Your task to perform on an android device: What's the weather going to be tomorrow? Image 0: 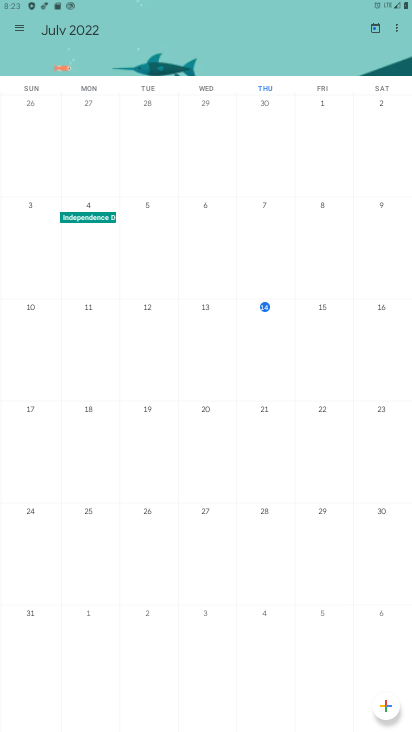
Step 0: press home button
Your task to perform on an android device: What's the weather going to be tomorrow? Image 1: 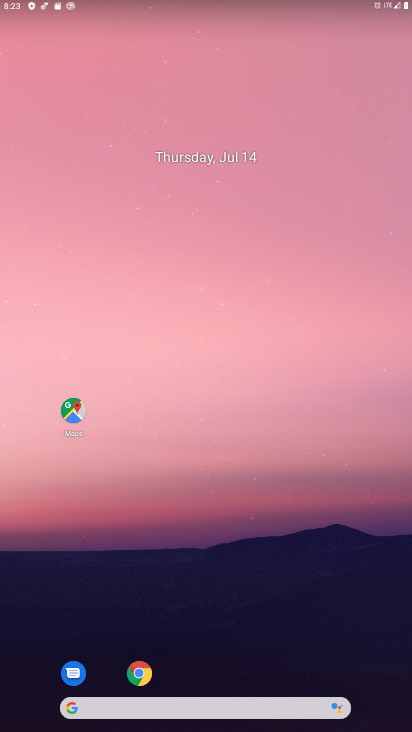
Step 1: drag from (176, 706) to (247, 274)
Your task to perform on an android device: What's the weather going to be tomorrow? Image 2: 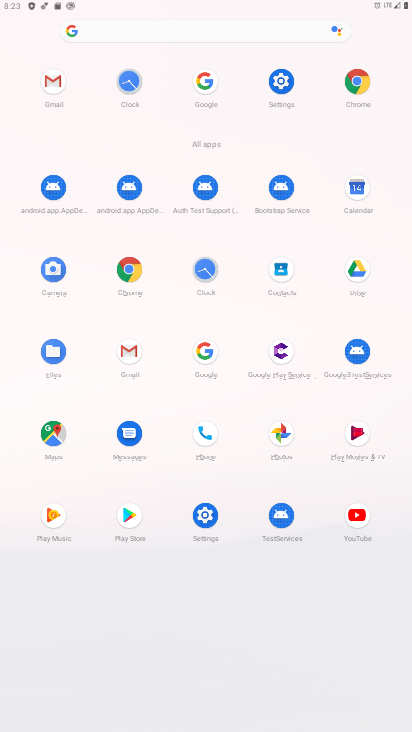
Step 2: click (204, 353)
Your task to perform on an android device: What's the weather going to be tomorrow? Image 3: 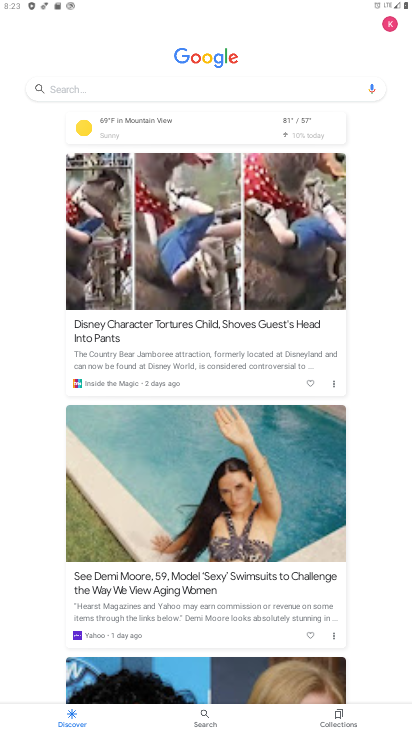
Step 3: click (191, 122)
Your task to perform on an android device: What's the weather going to be tomorrow? Image 4: 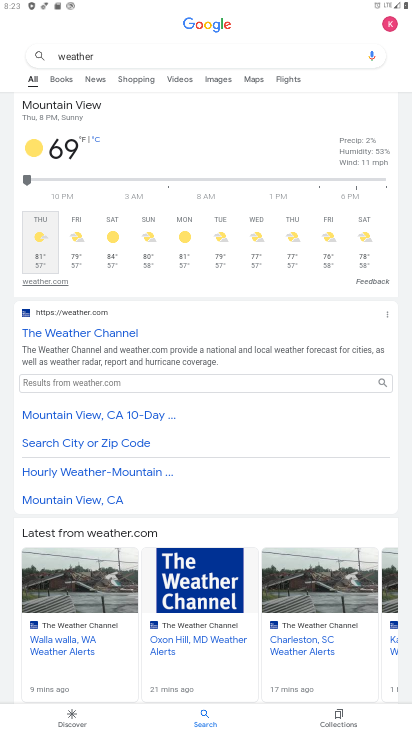
Step 4: click (77, 239)
Your task to perform on an android device: What's the weather going to be tomorrow? Image 5: 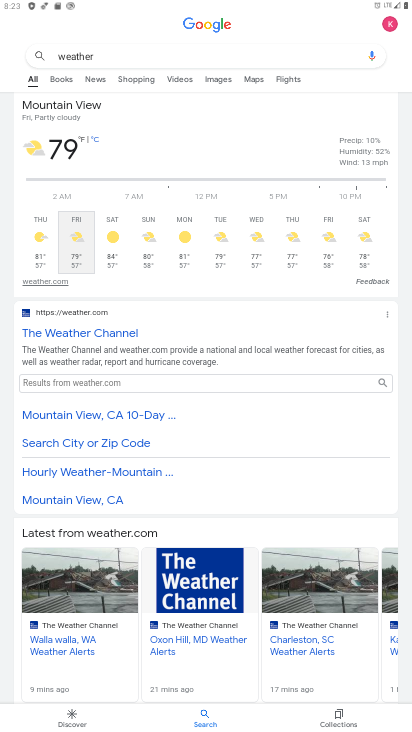
Step 5: task complete